Your task to perform on an android device: Add energizer triple a to the cart on amazon.com, then select checkout. Image 0: 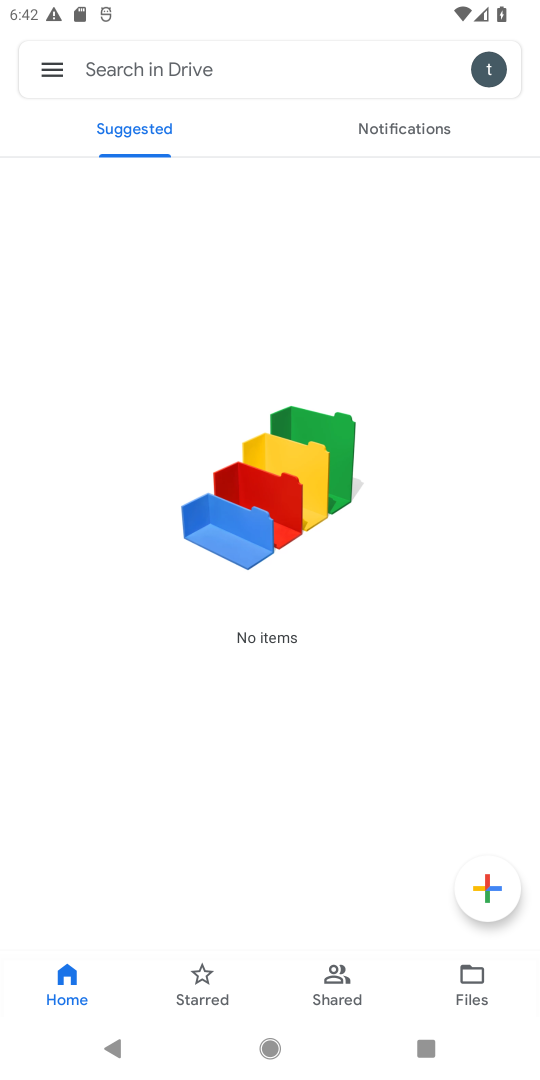
Step 0: press home button
Your task to perform on an android device: Add energizer triple a to the cart on amazon.com, then select checkout. Image 1: 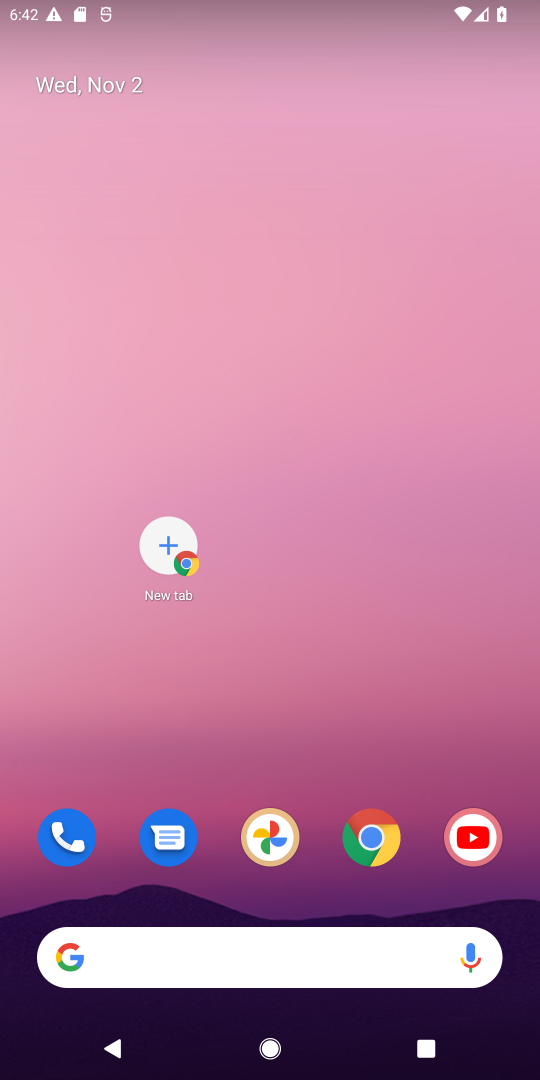
Step 1: click (160, 550)
Your task to perform on an android device: Add energizer triple a to the cart on amazon.com, then select checkout. Image 2: 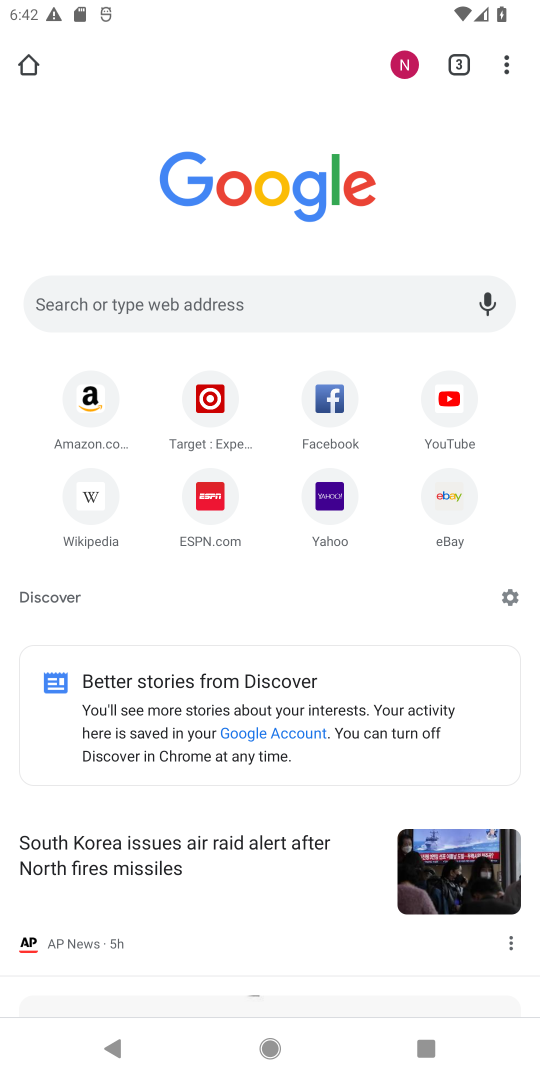
Step 2: click (213, 285)
Your task to perform on an android device: Add energizer triple a to the cart on amazon.com, then select checkout. Image 3: 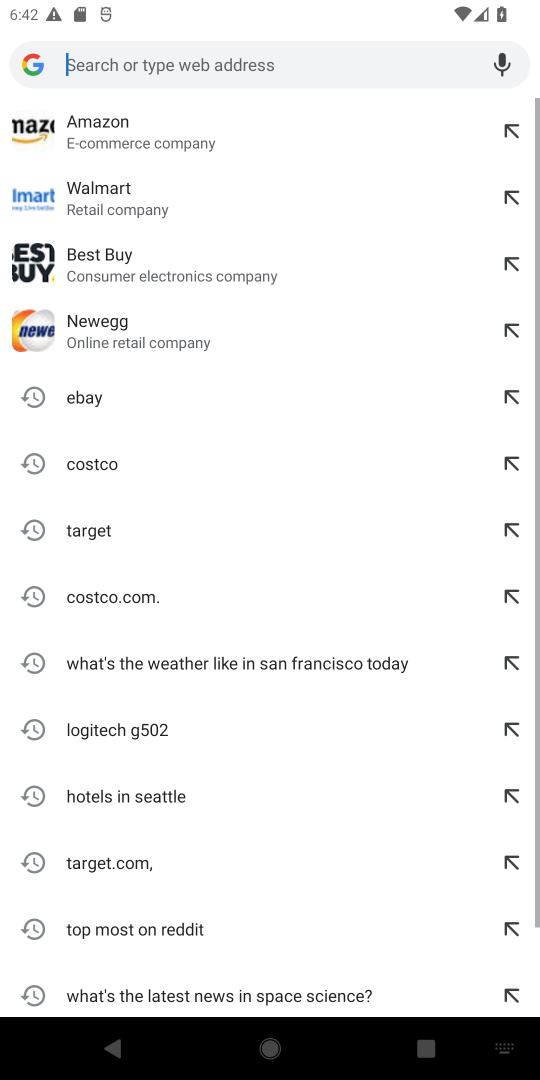
Step 3: type ""
Your task to perform on an android device: Add energizer triple a to the cart on amazon.com, then select checkout. Image 4: 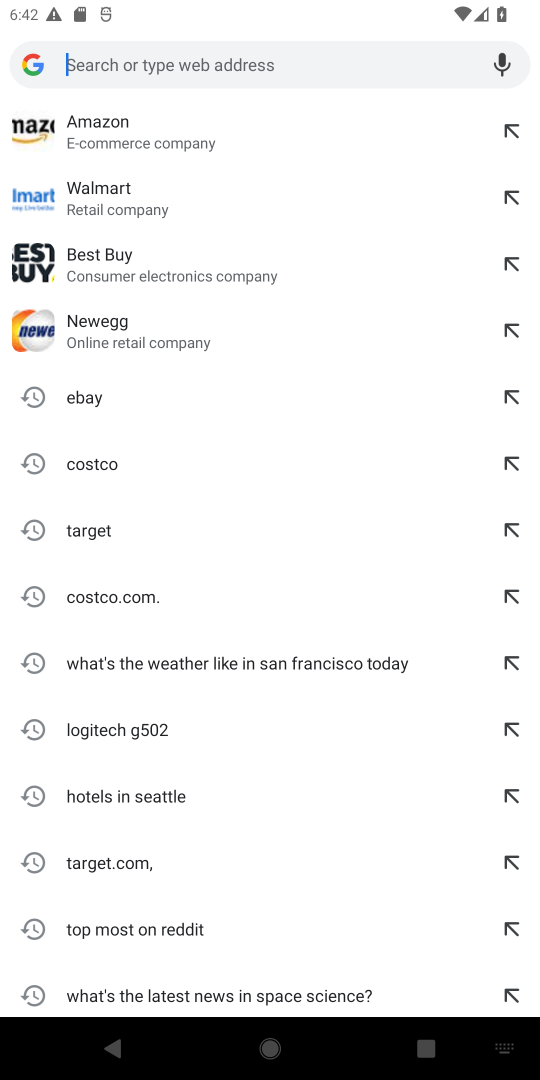
Step 4: type "amazone.com"
Your task to perform on an android device: Add energizer triple a to the cart on amazon.com, then select checkout. Image 5: 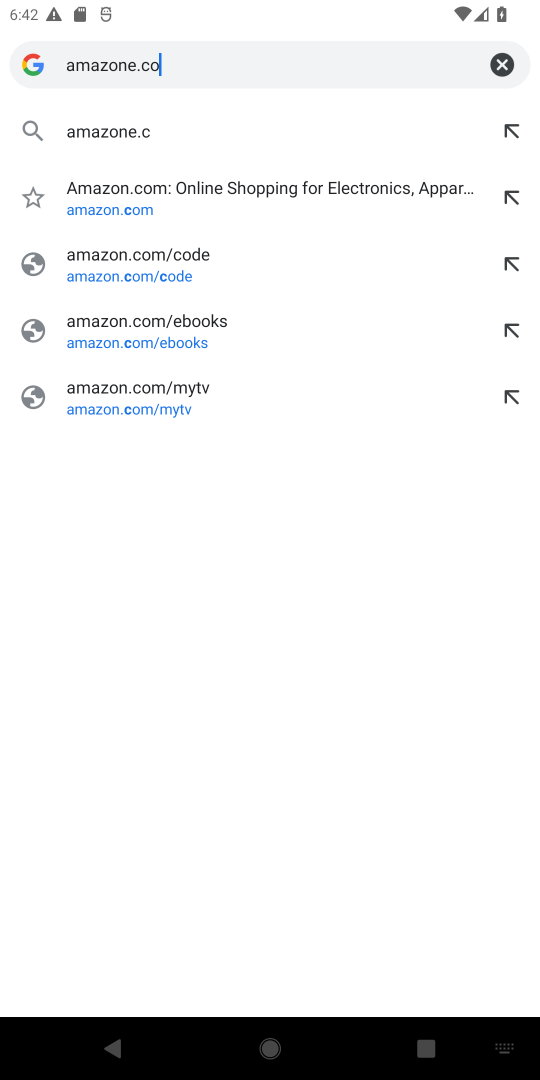
Step 5: type ""
Your task to perform on an android device: Add energizer triple a to the cart on amazon.com, then select checkout. Image 6: 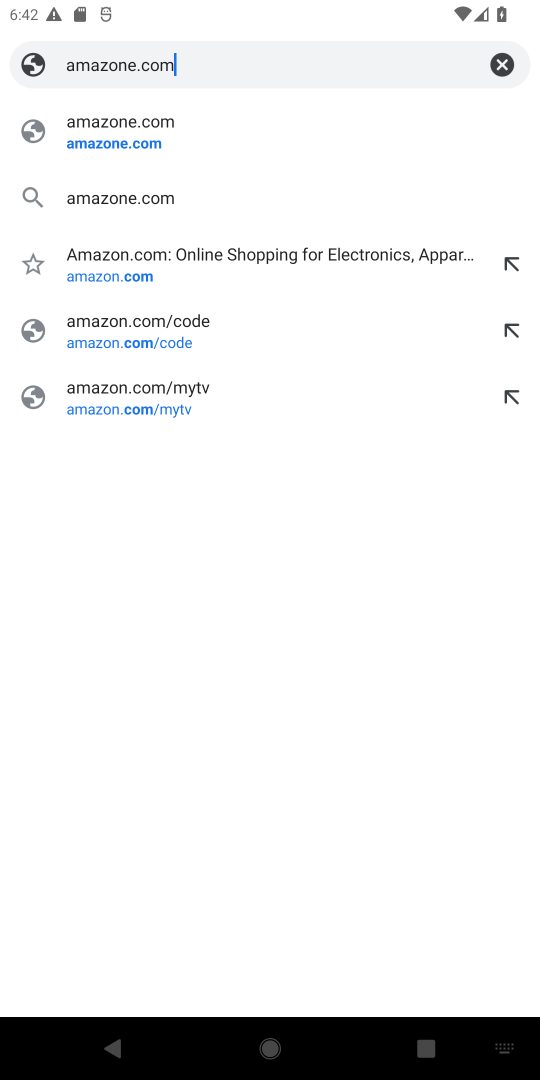
Step 6: click (164, 268)
Your task to perform on an android device: Add energizer triple a to the cart on amazon.com, then select checkout. Image 7: 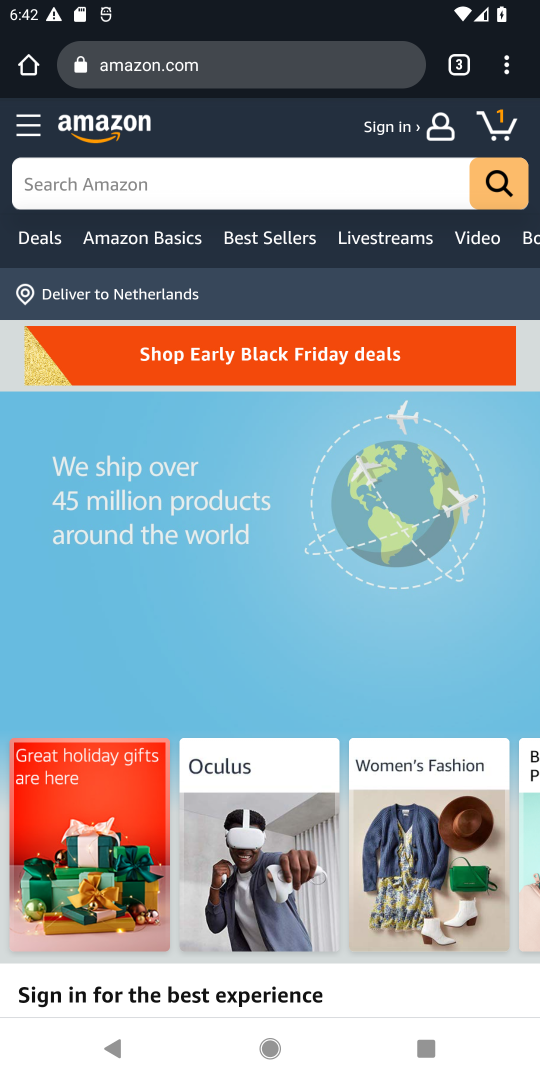
Step 7: click (222, 187)
Your task to perform on an android device: Add energizer triple a to the cart on amazon.com, then select checkout. Image 8: 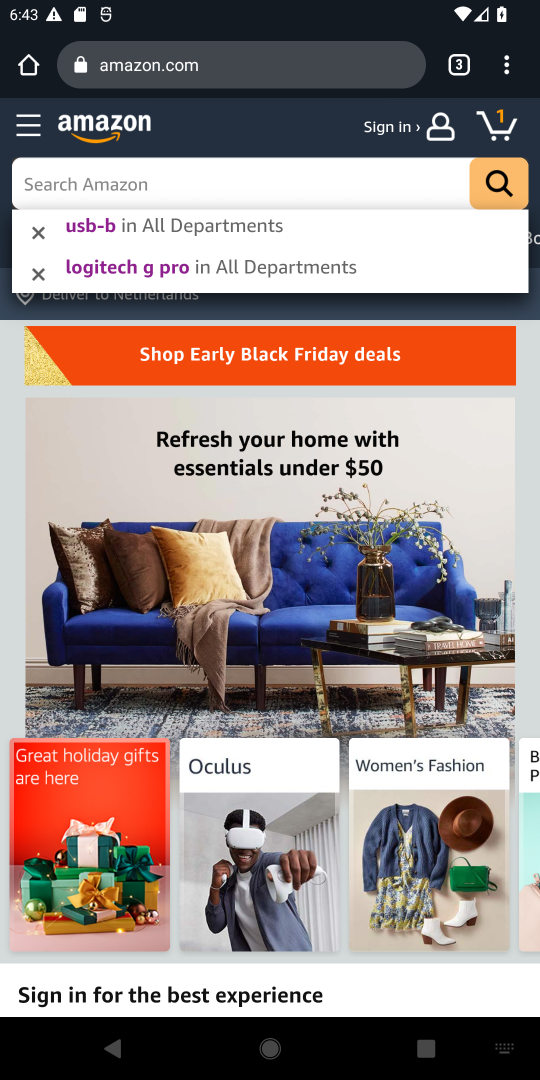
Step 8: type "energizer triple"
Your task to perform on an android device: Add energizer triple a to the cart on amazon.com, then select checkout. Image 9: 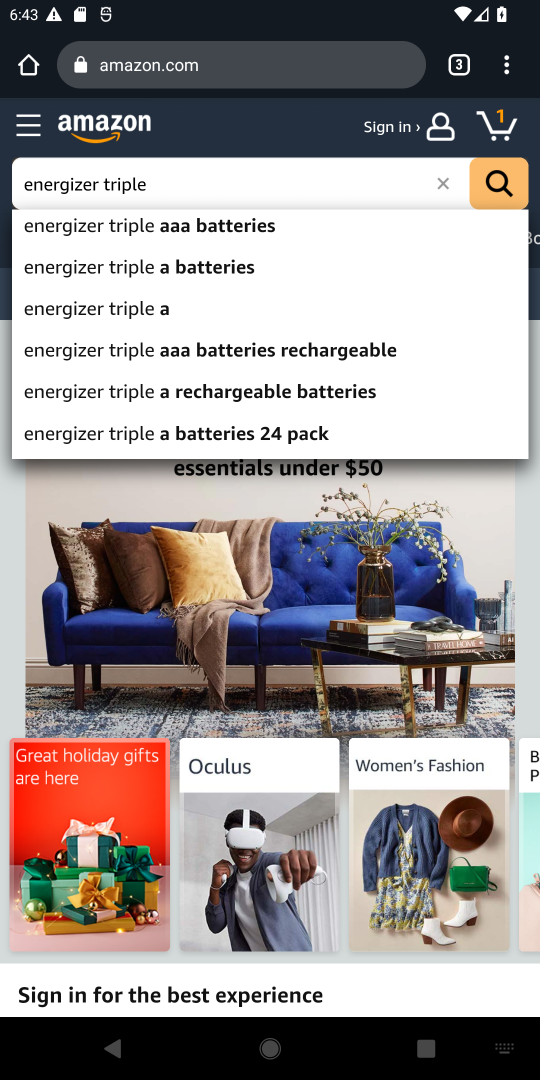
Step 9: click (185, 228)
Your task to perform on an android device: Add energizer triple a to the cart on amazon.com, then select checkout. Image 10: 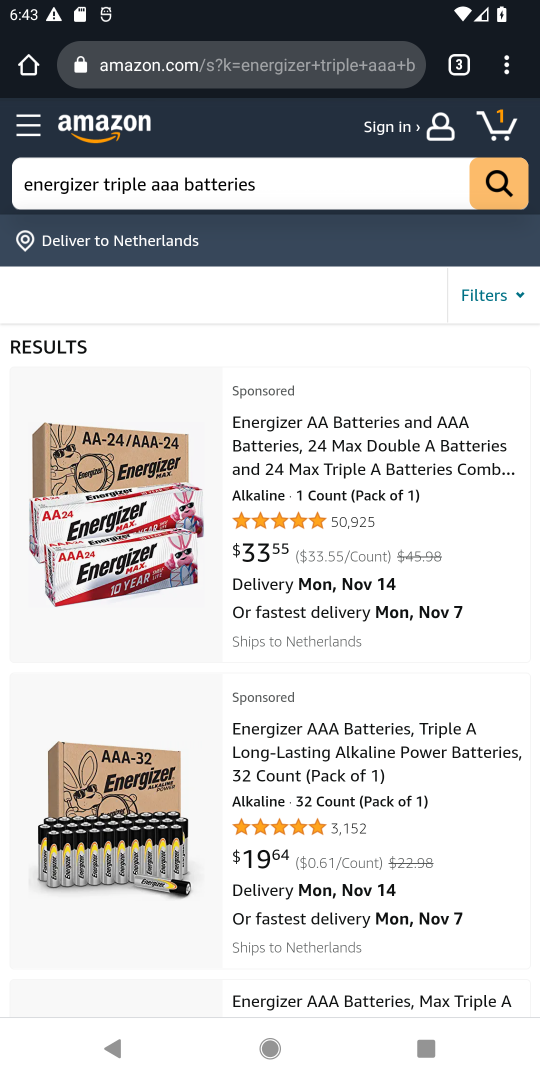
Step 10: click (285, 437)
Your task to perform on an android device: Add energizer triple a to the cart on amazon.com, then select checkout. Image 11: 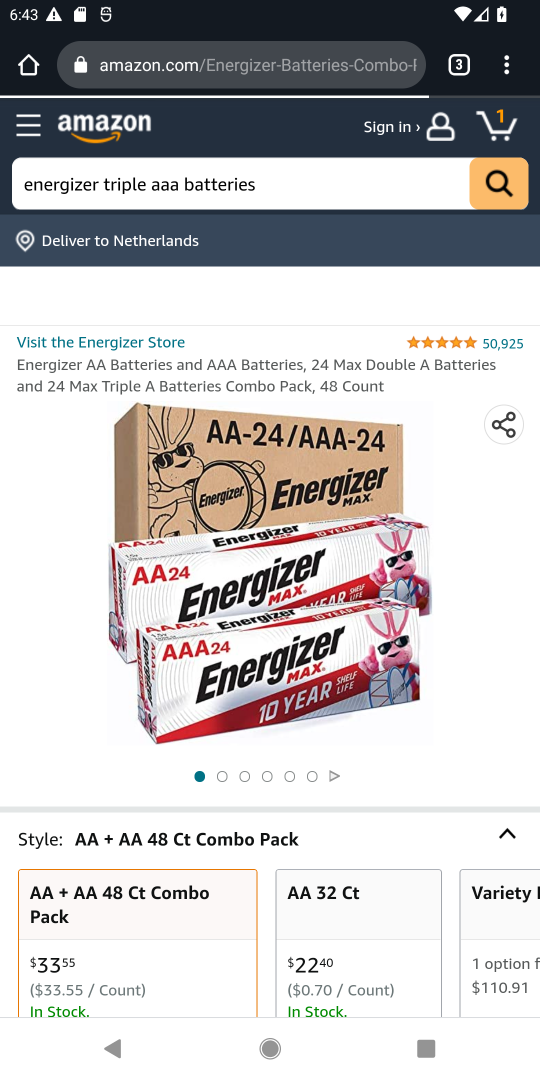
Step 11: drag from (264, 739) to (270, 511)
Your task to perform on an android device: Add energizer triple a to the cart on amazon.com, then select checkout. Image 12: 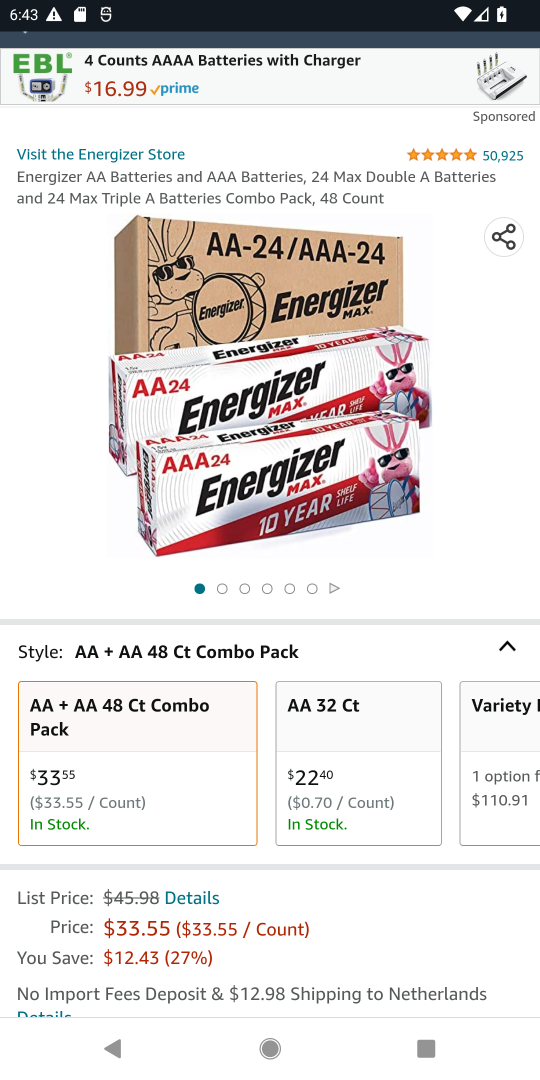
Step 12: drag from (264, 846) to (275, 545)
Your task to perform on an android device: Add energizer triple a to the cart on amazon.com, then select checkout. Image 13: 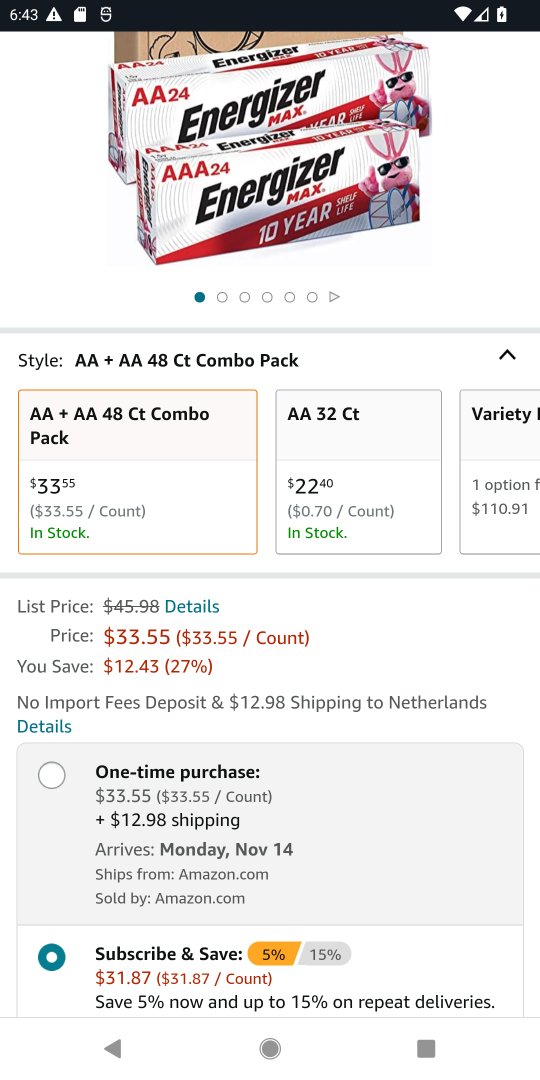
Step 13: drag from (314, 842) to (343, 455)
Your task to perform on an android device: Add energizer triple a to the cart on amazon.com, then select checkout. Image 14: 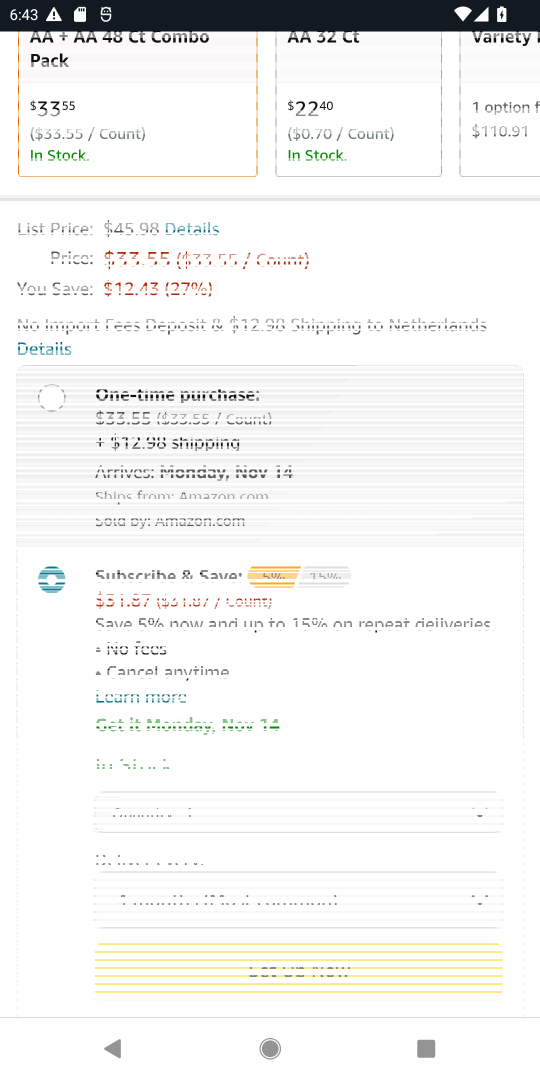
Step 14: drag from (306, 821) to (326, 441)
Your task to perform on an android device: Add energizer triple a to the cart on amazon.com, then select checkout. Image 15: 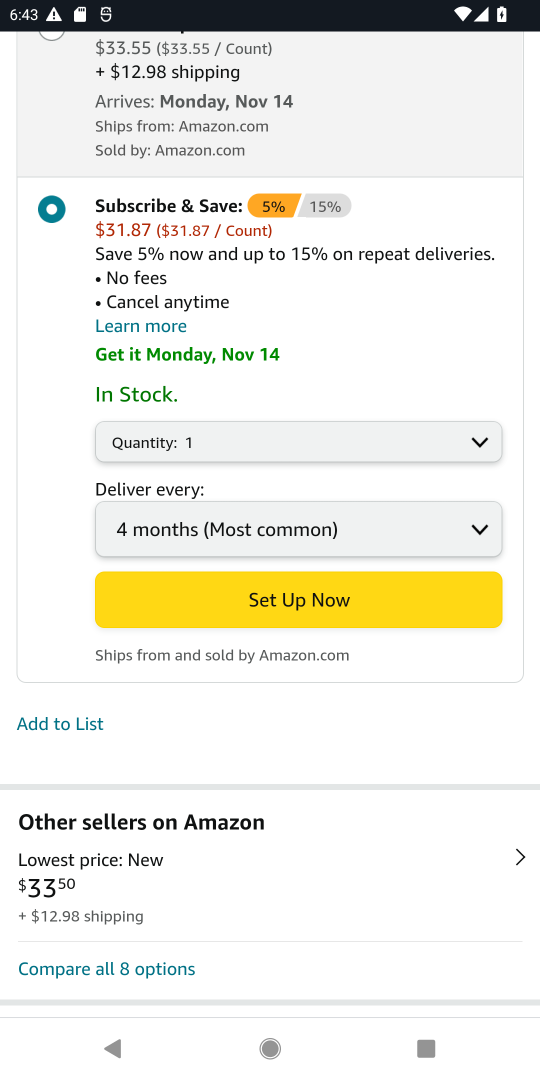
Step 15: drag from (272, 824) to (271, 474)
Your task to perform on an android device: Add energizer triple a to the cart on amazon.com, then select checkout. Image 16: 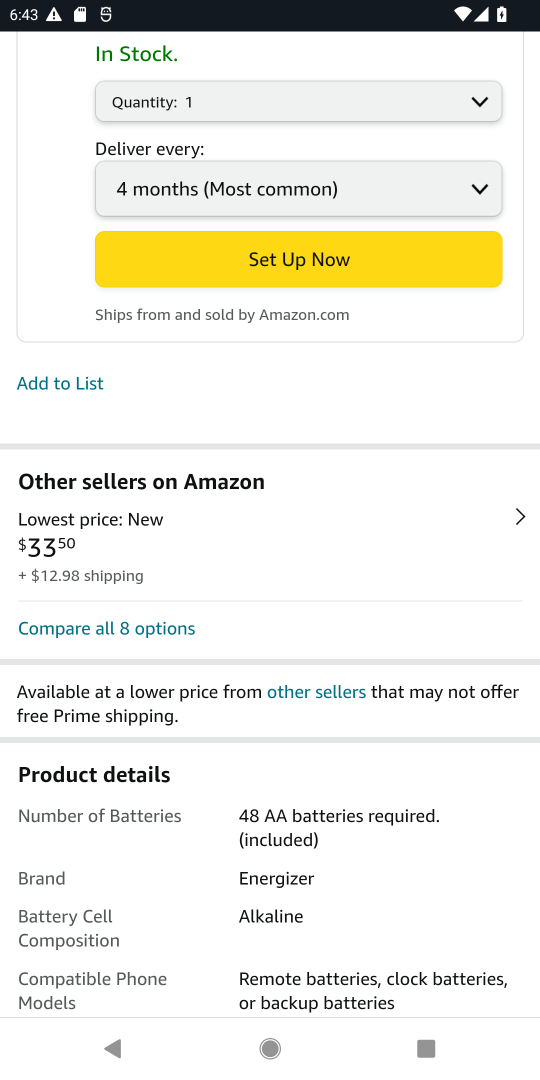
Step 16: press back button
Your task to perform on an android device: Add energizer triple a to the cart on amazon.com, then select checkout. Image 17: 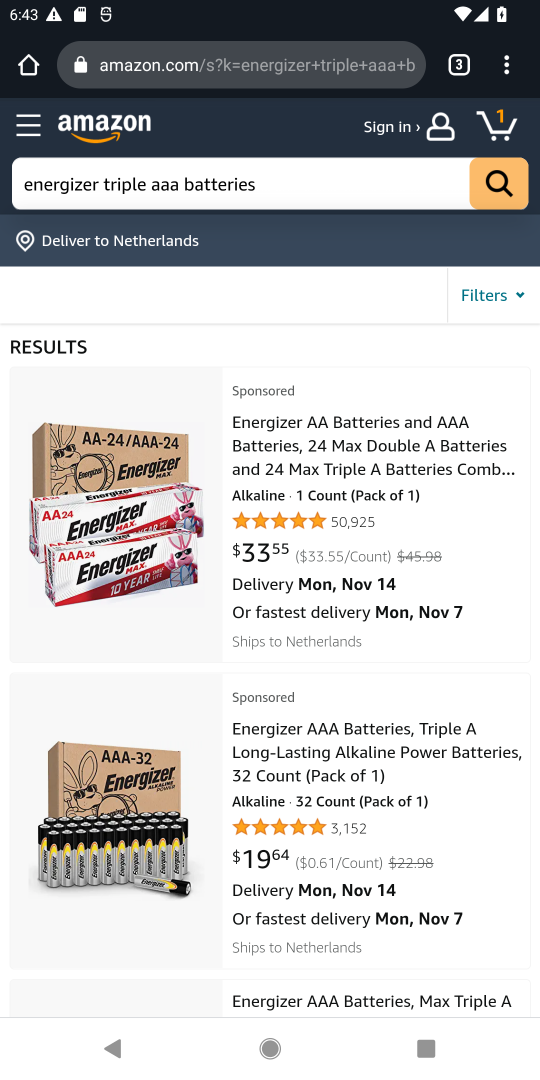
Step 17: click (138, 800)
Your task to perform on an android device: Add energizer triple a to the cart on amazon.com, then select checkout. Image 18: 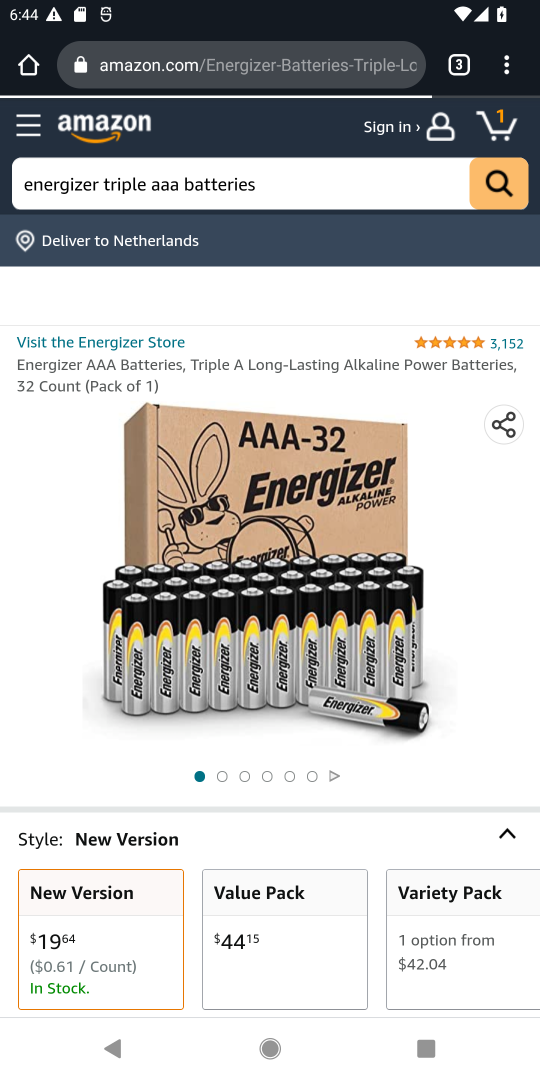
Step 18: drag from (204, 792) to (212, 420)
Your task to perform on an android device: Add energizer triple a to the cart on amazon.com, then select checkout. Image 19: 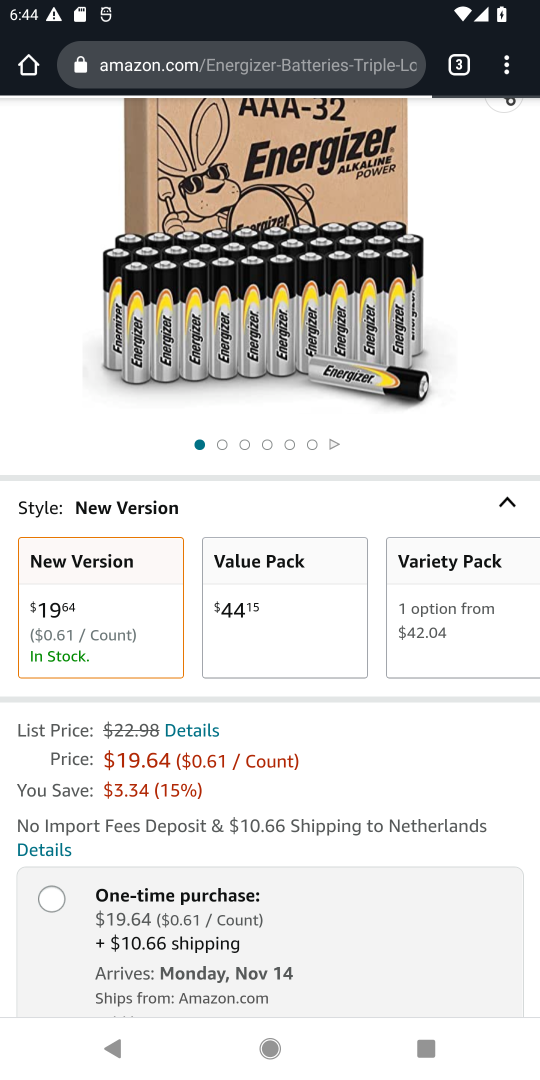
Step 19: drag from (260, 809) to (287, 490)
Your task to perform on an android device: Add energizer triple a to the cart on amazon.com, then select checkout. Image 20: 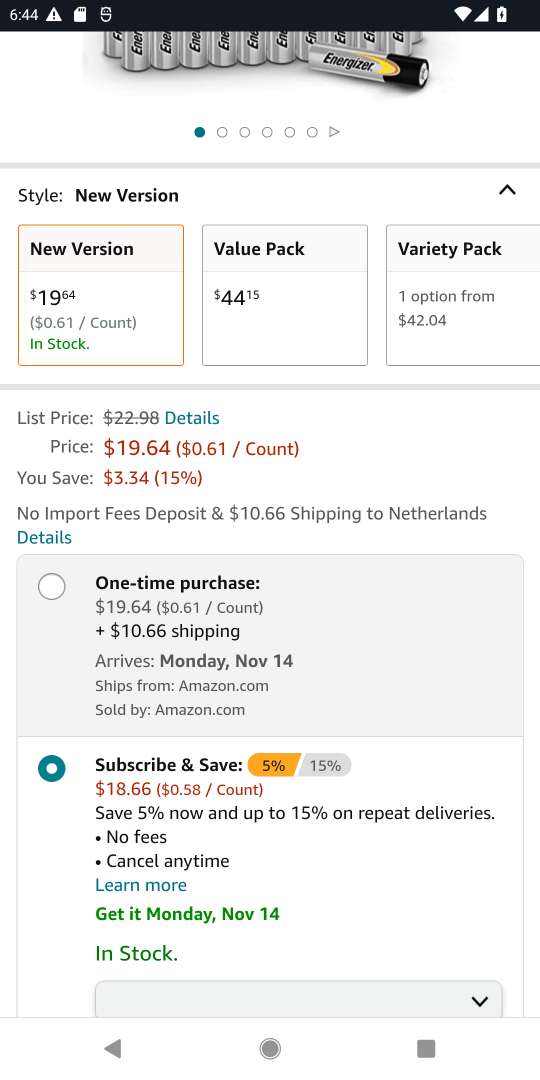
Step 20: drag from (271, 893) to (344, 476)
Your task to perform on an android device: Add energizer triple a to the cart on amazon.com, then select checkout. Image 21: 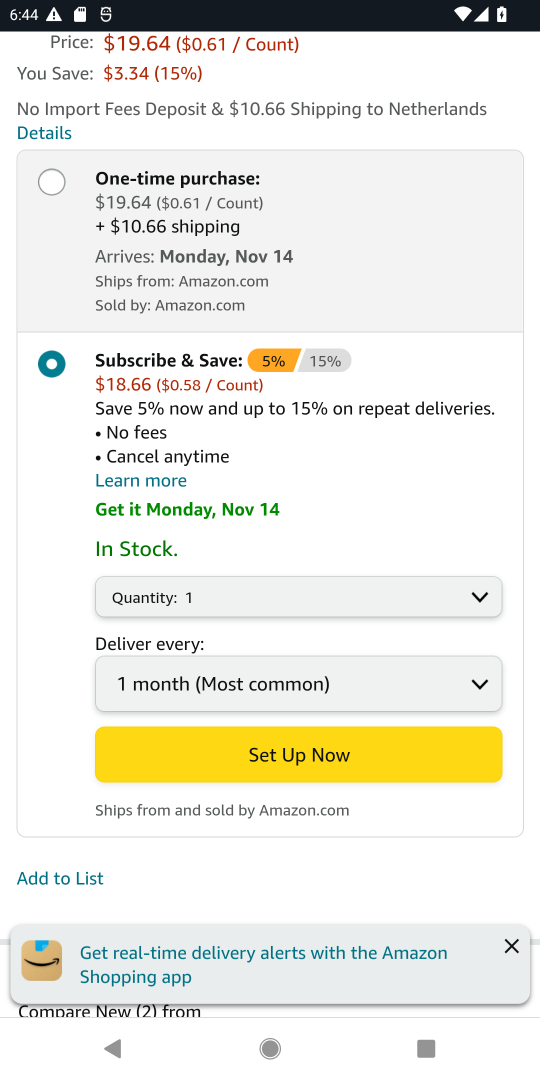
Step 21: press back button
Your task to perform on an android device: Add energizer triple a to the cart on amazon.com, then select checkout. Image 22: 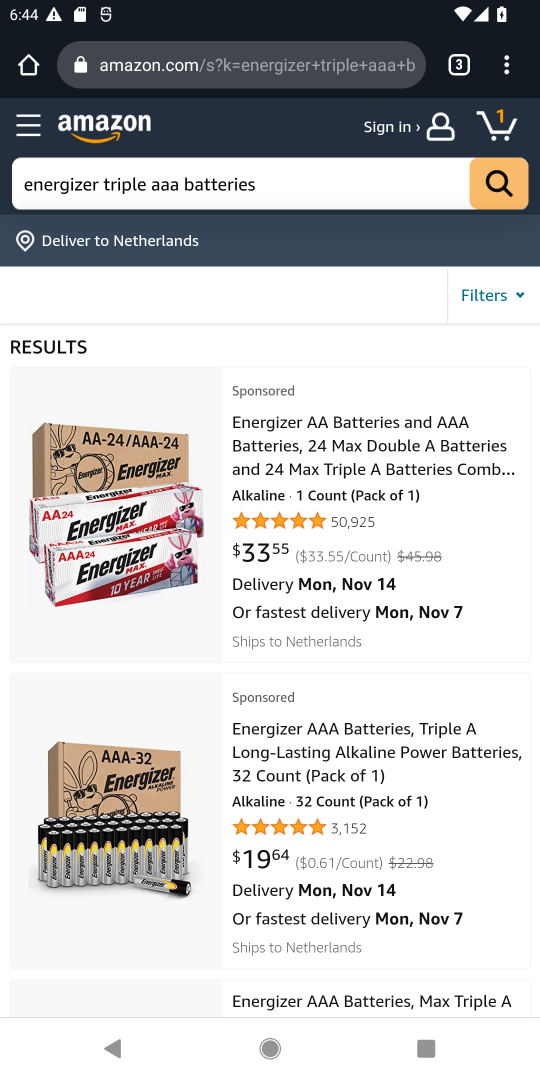
Step 22: drag from (279, 842) to (271, 484)
Your task to perform on an android device: Add energizer triple a to the cart on amazon.com, then select checkout. Image 23: 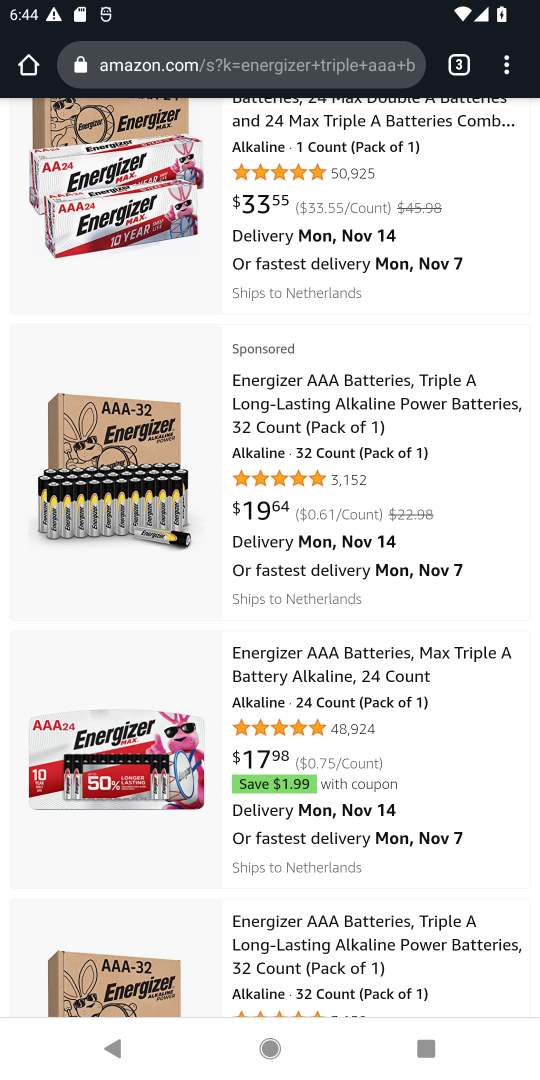
Step 23: drag from (281, 838) to (328, 426)
Your task to perform on an android device: Add energizer triple a to the cart on amazon.com, then select checkout. Image 24: 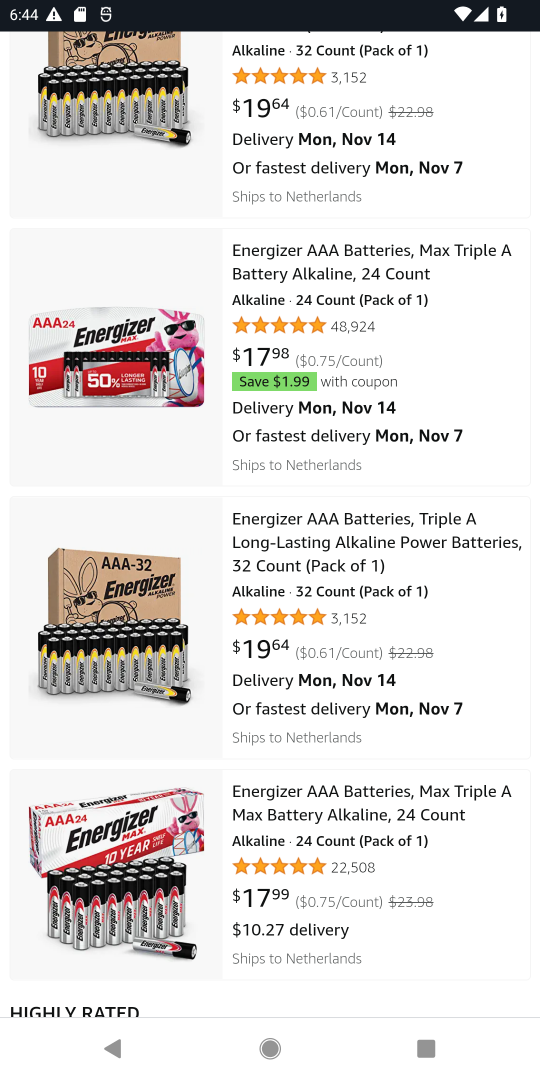
Step 24: click (174, 847)
Your task to perform on an android device: Add energizer triple a to the cart on amazon.com, then select checkout. Image 25: 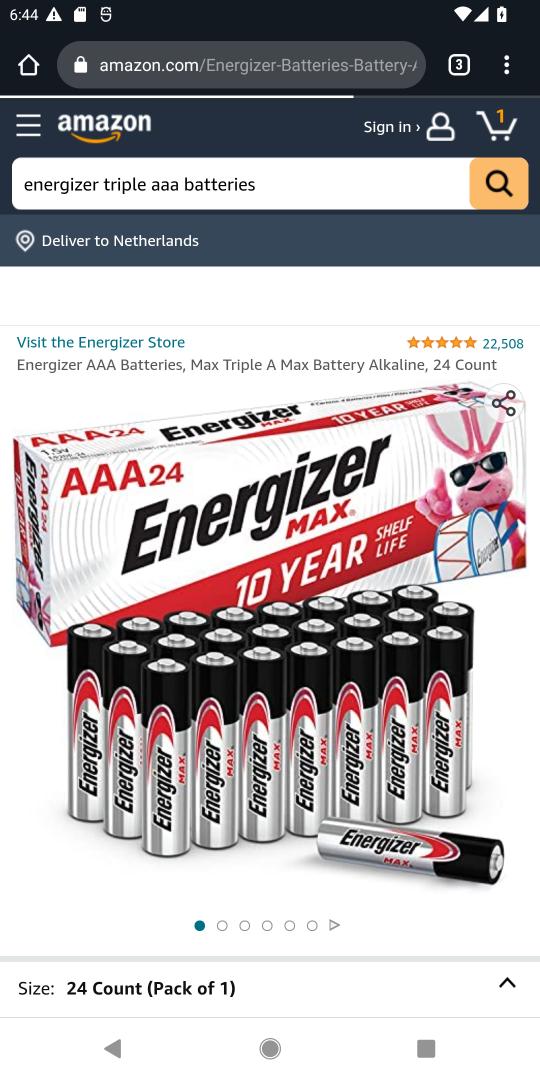
Step 25: drag from (273, 787) to (329, 502)
Your task to perform on an android device: Add energizer triple a to the cart on amazon.com, then select checkout. Image 26: 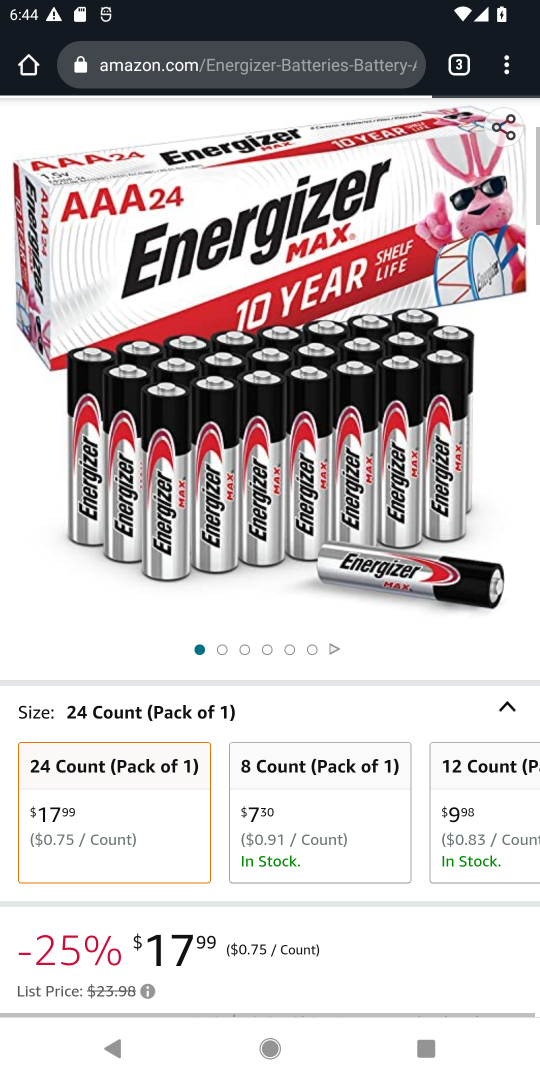
Step 26: drag from (280, 770) to (292, 439)
Your task to perform on an android device: Add energizer triple a to the cart on amazon.com, then select checkout. Image 27: 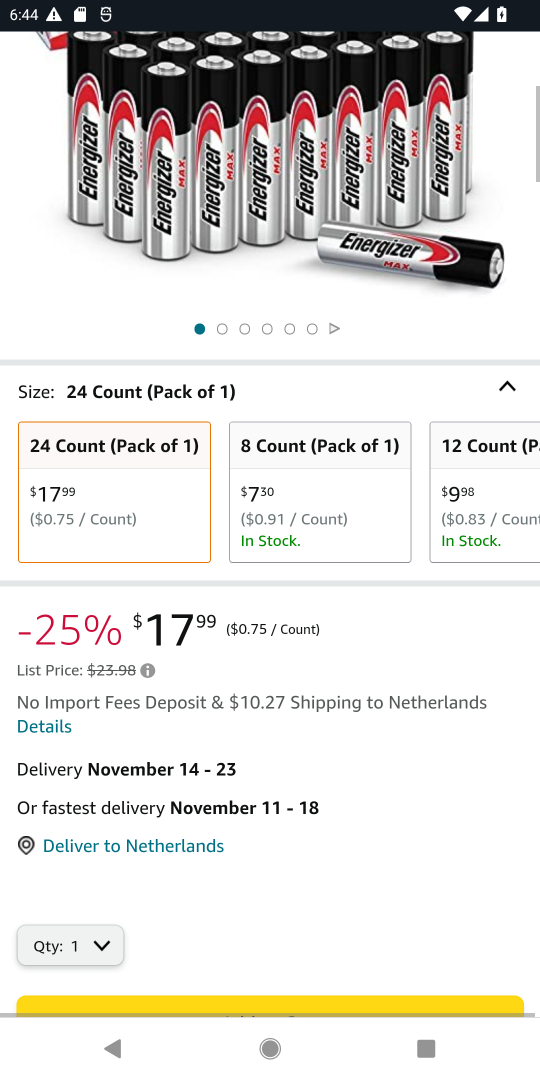
Step 27: drag from (251, 968) to (313, 672)
Your task to perform on an android device: Add energizer triple a to the cart on amazon.com, then select checkout. Image 28: 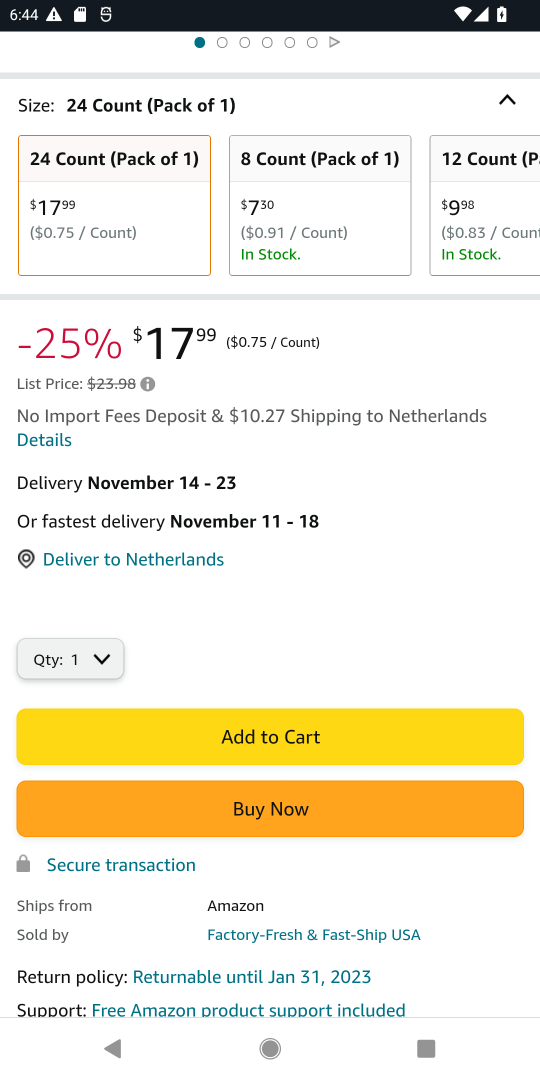
Step 28: click (264, 747)
Your task to perform on an android device: Add energizer triple a to the cart on amazon.com, then select checkout. Image 29: 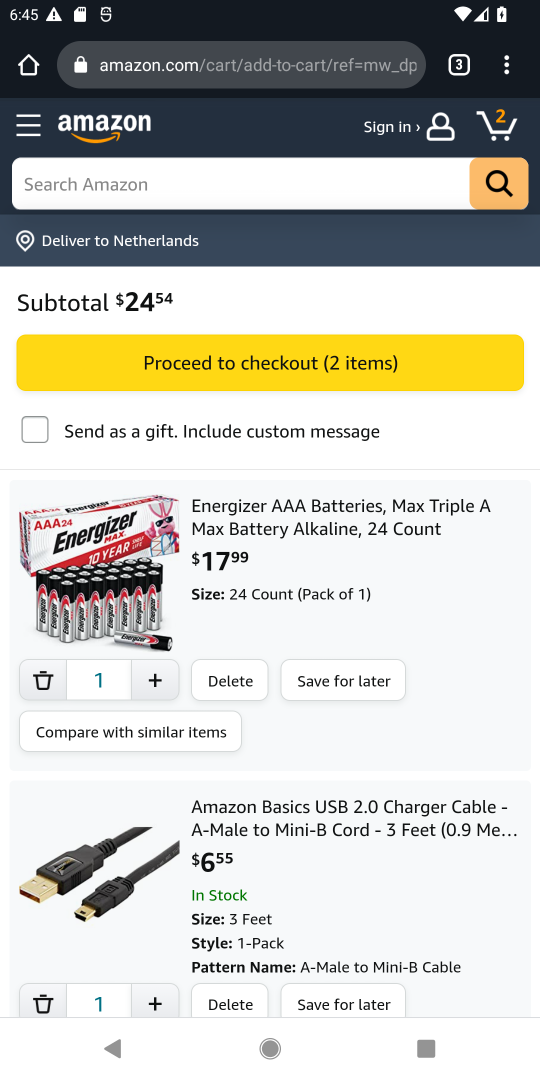
Step 29: drag from (346, 873) to (323, 973)
Your task to perform on an android device: Add energizer triple a to the cart on amazon.com, then select checkout. Image 30: 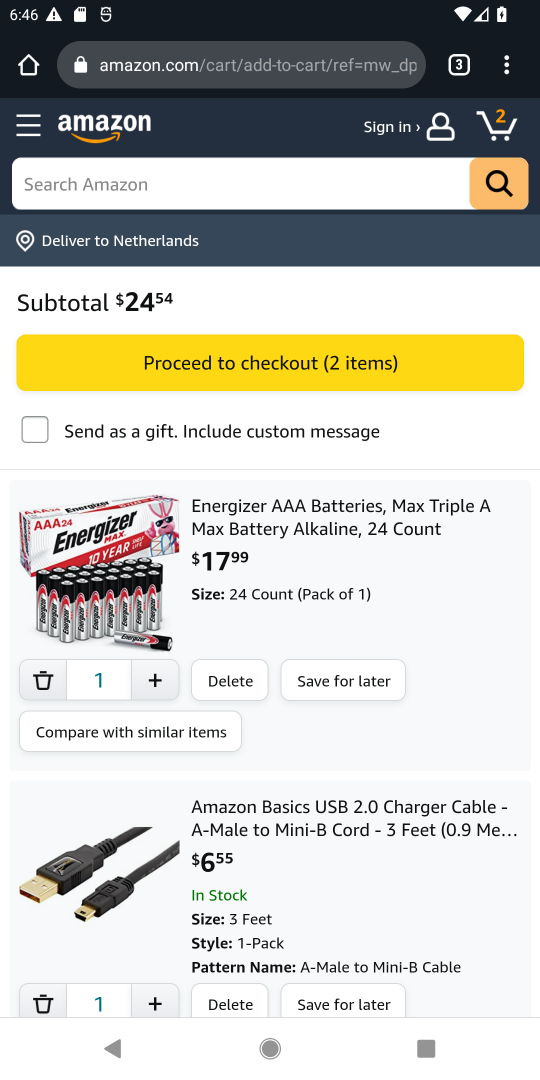
Step 30: click (201, 361)
Your task to perform on an android device: Add energizer triple a to the cart on amazon.com, then select checkout. Image 31: 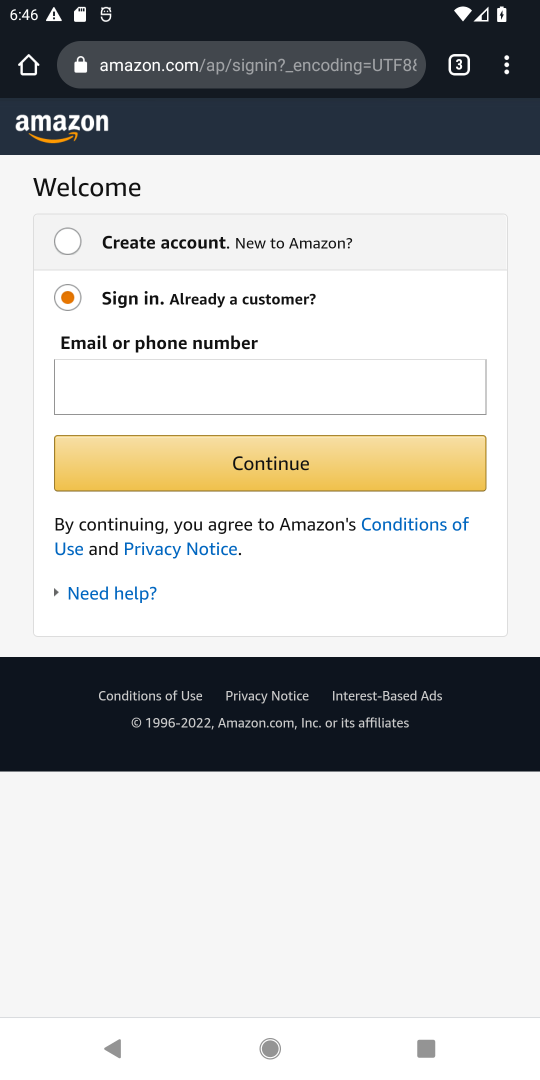
Step 31: task complete